Your task to perform on an android device: open app "Google Keep" Image 0: 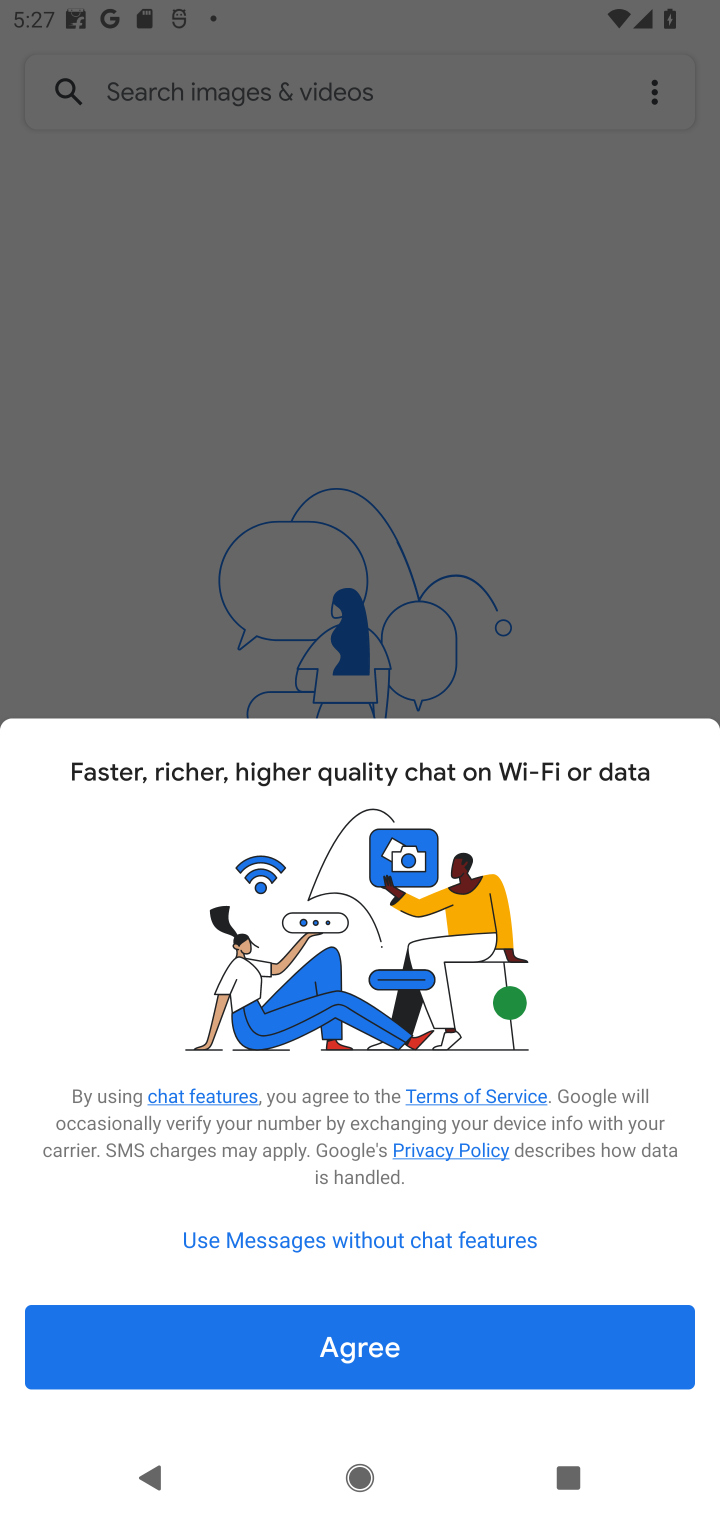
Step 0: press home button
Your task to perform on an android device: open app "Google Keep" Image 1: 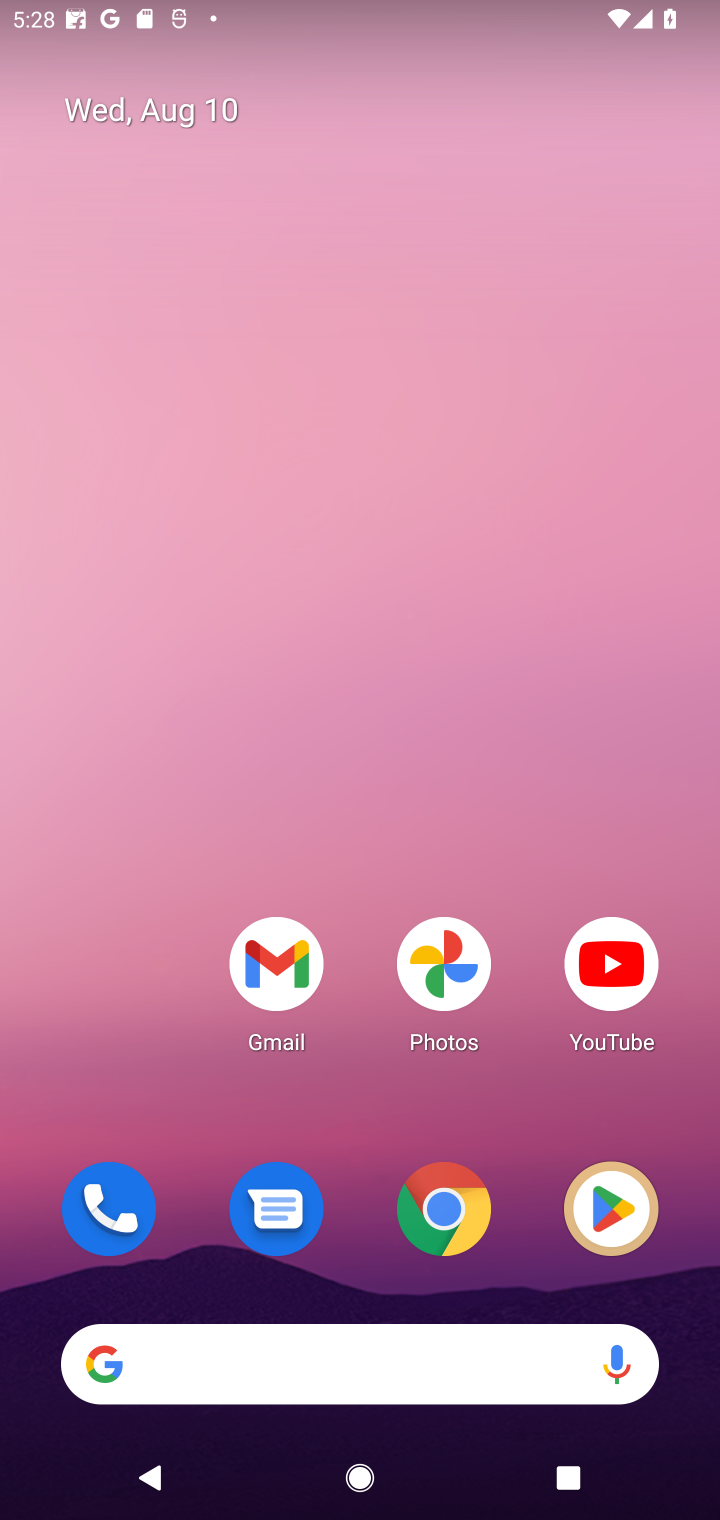
Step 1: drag from (384, 1298) to (25, 458)
Your task to perform on an android device: open app "Google Keep" Image 2: 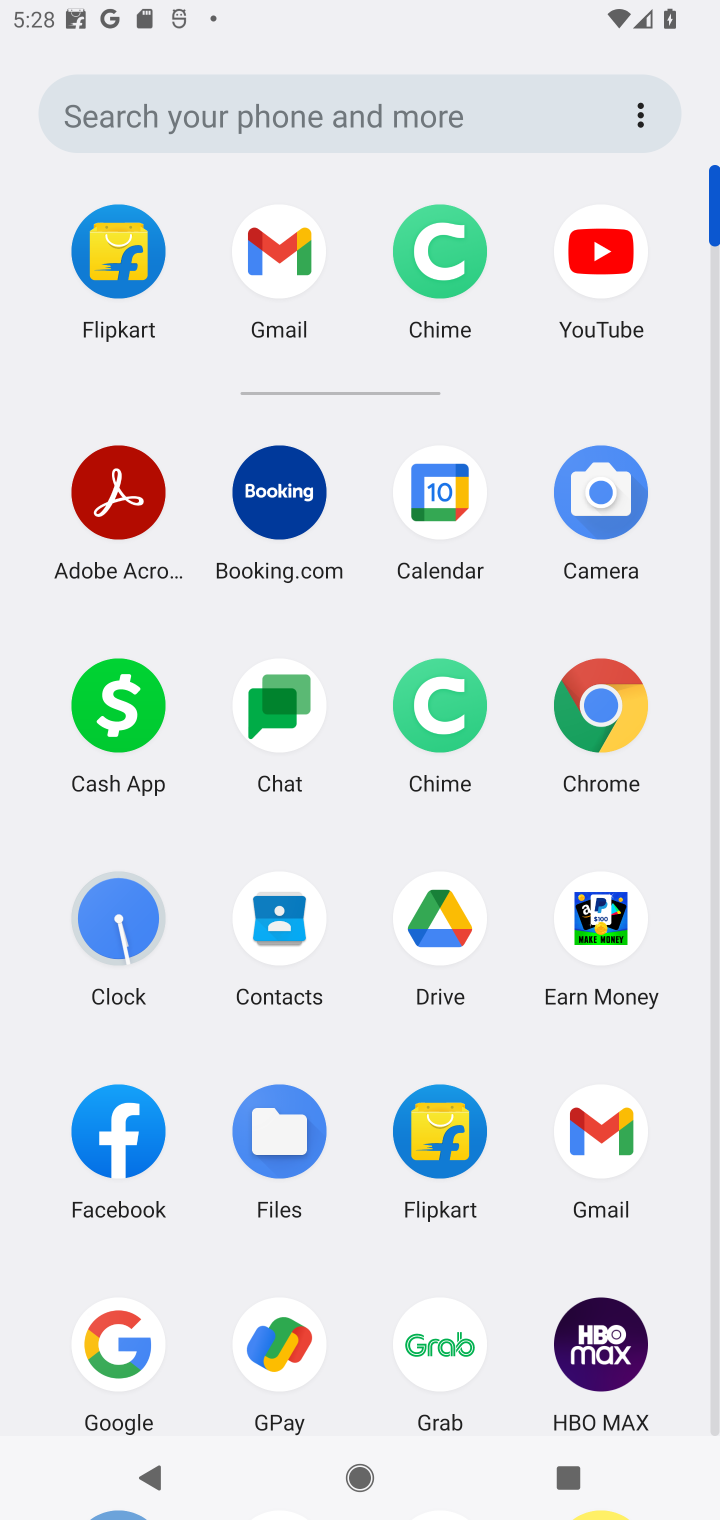
Step 2: drag from (416, 1327) to (401, 565)
Your task to perform on an android device: open app "Google Keep" Image 3: 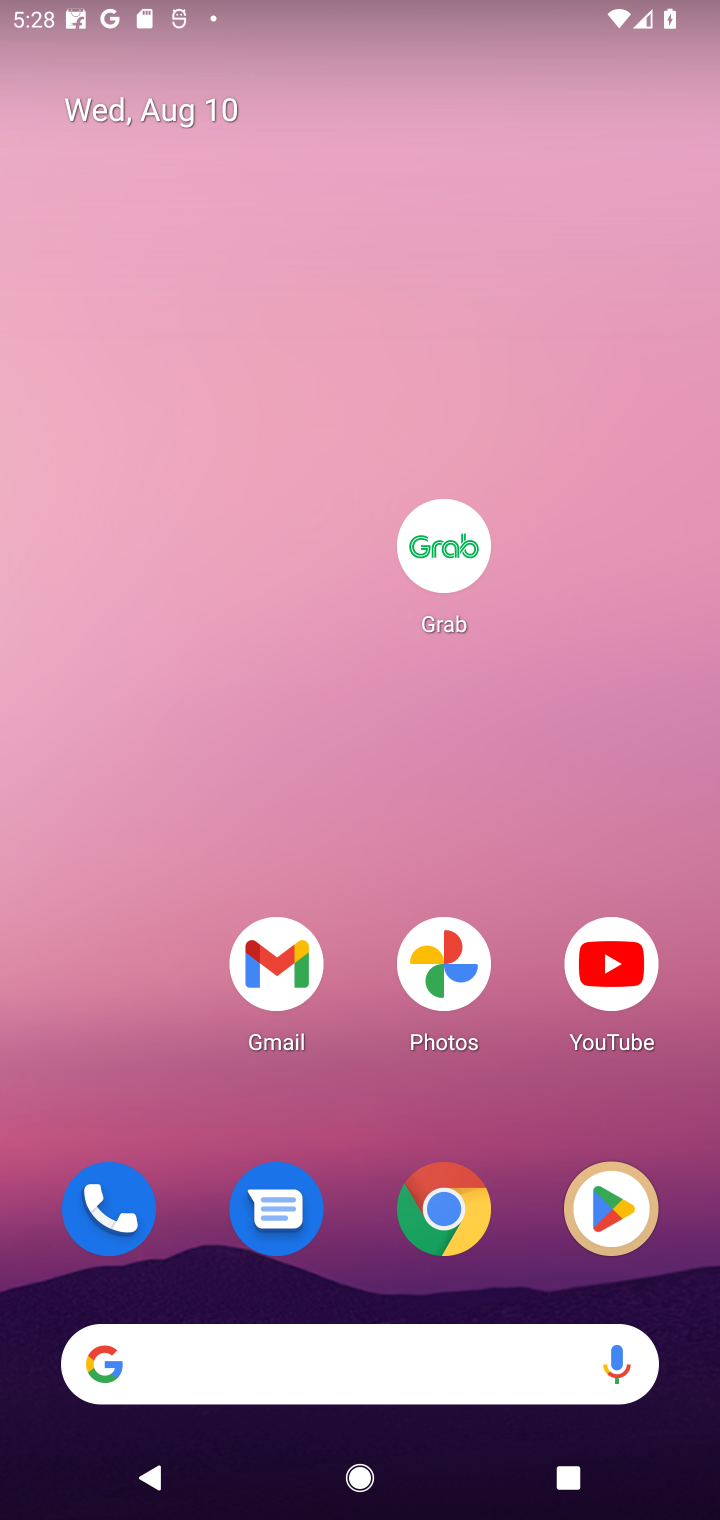
Step 3: click (652, 1240)
Your task to perform on an android device: open app "Google Keep" Image 4: 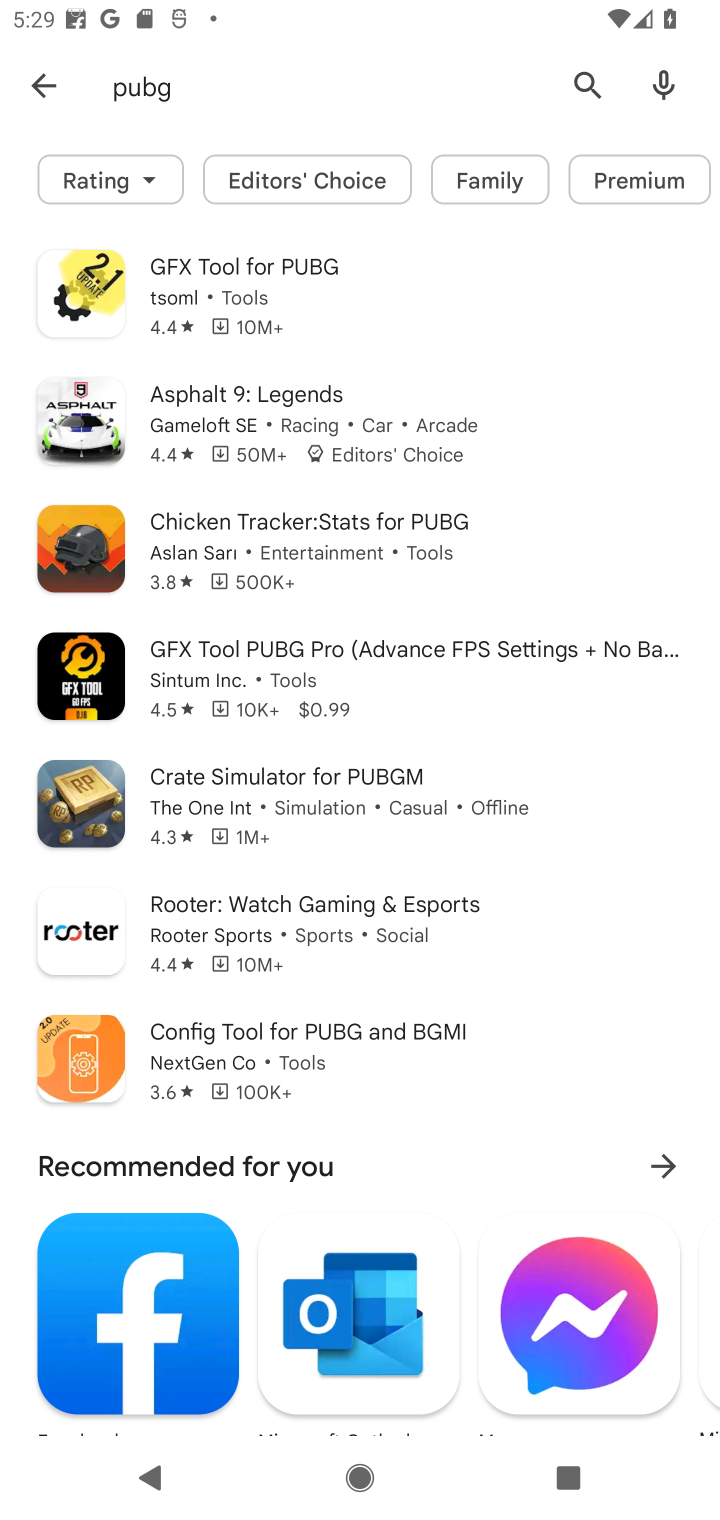
Step 4: click (575, 97)
Your task to perform on an android device: open app "Google Keep" Image 5: 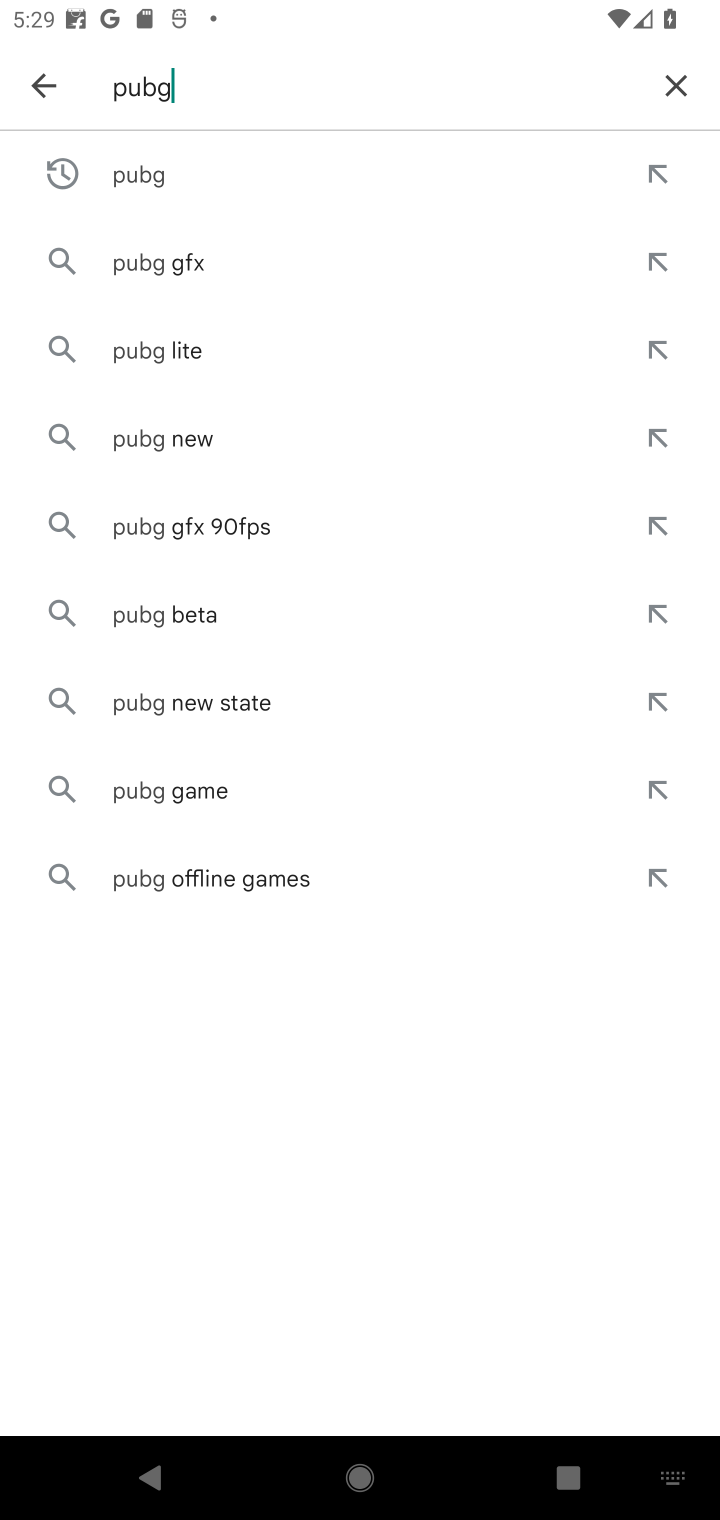
Step 5: click (649, 72)
Your task to perform on an android device: open app "Google Keep" Image 6: 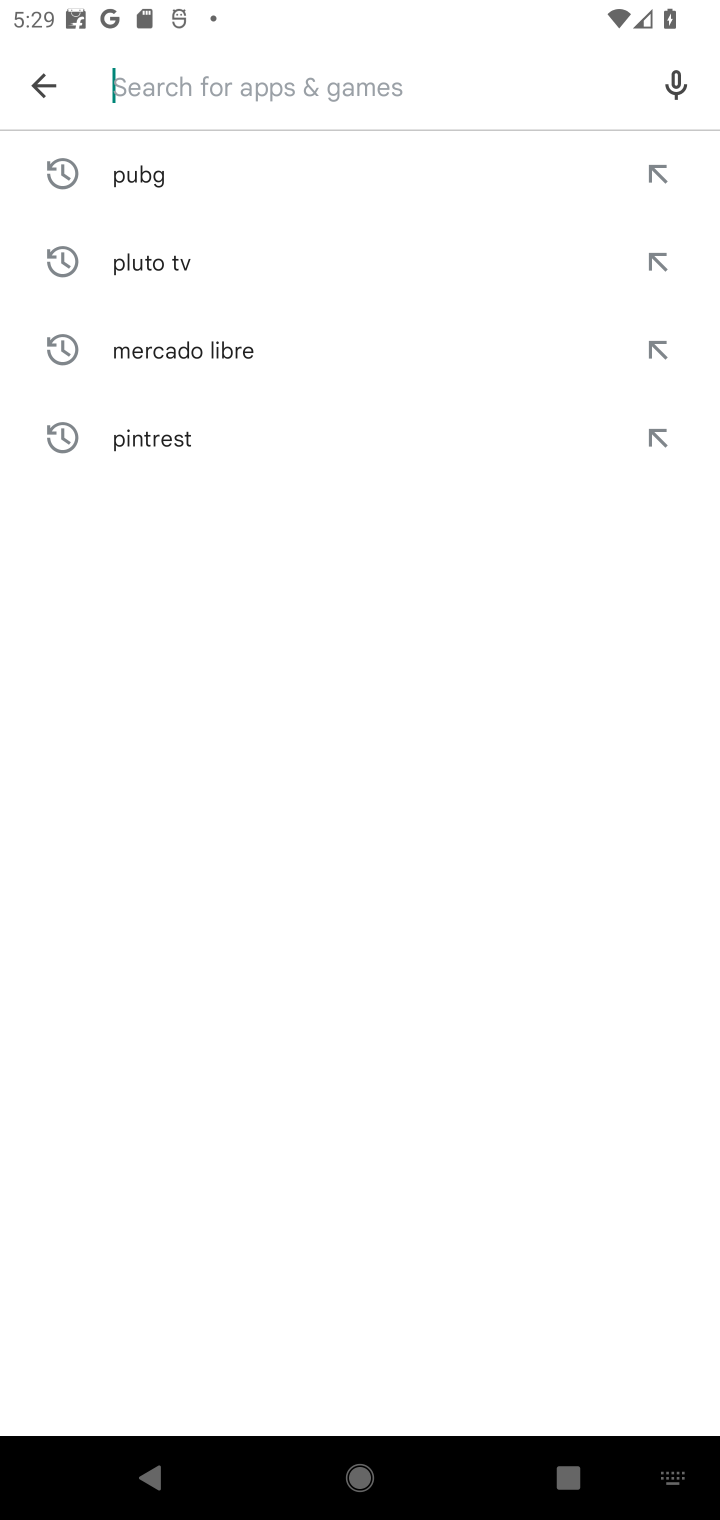
Step 6: type "google keeps"
Your task to perform on an android device: open app "Google Keep" Image 7: 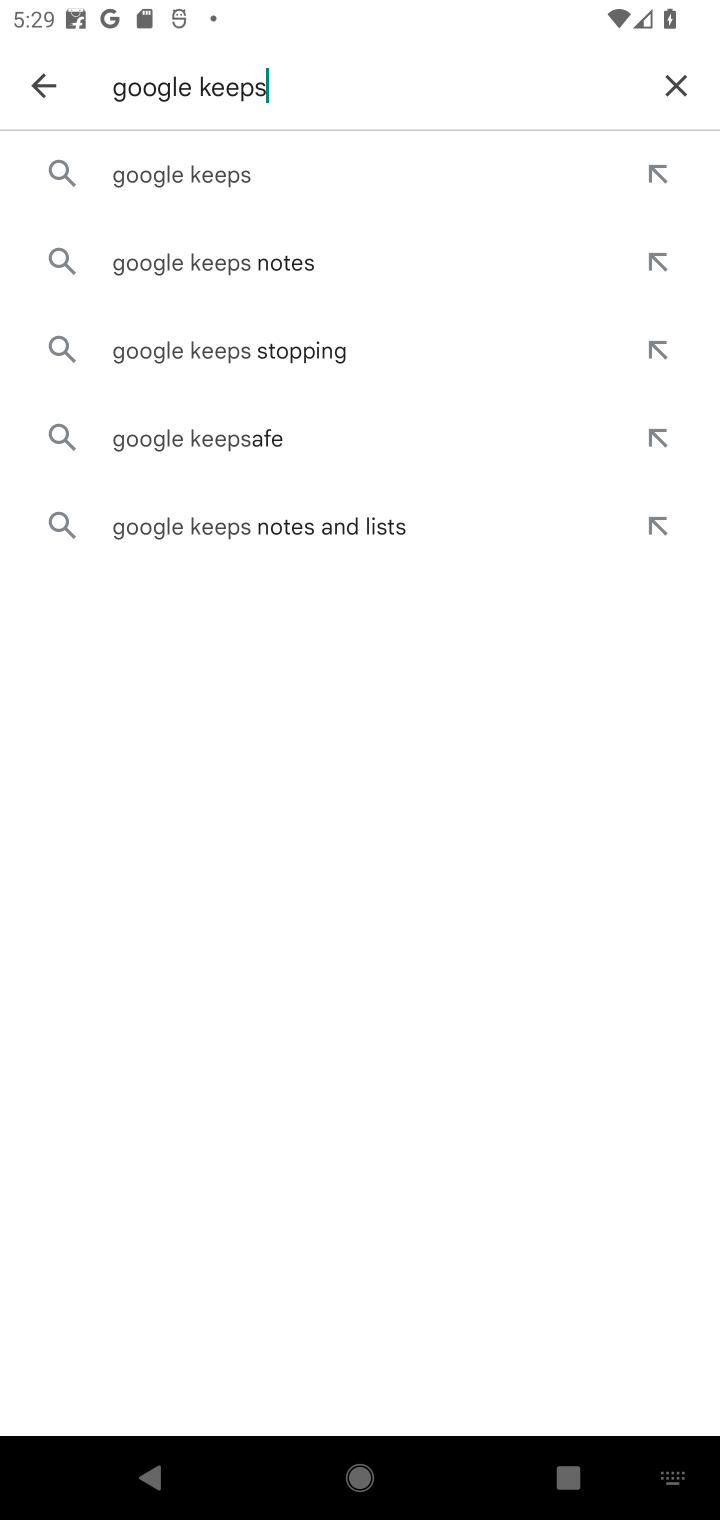
Step 7: click (620, 195)
Your task to perform on an android device: open app "Google Keep" Image 8: 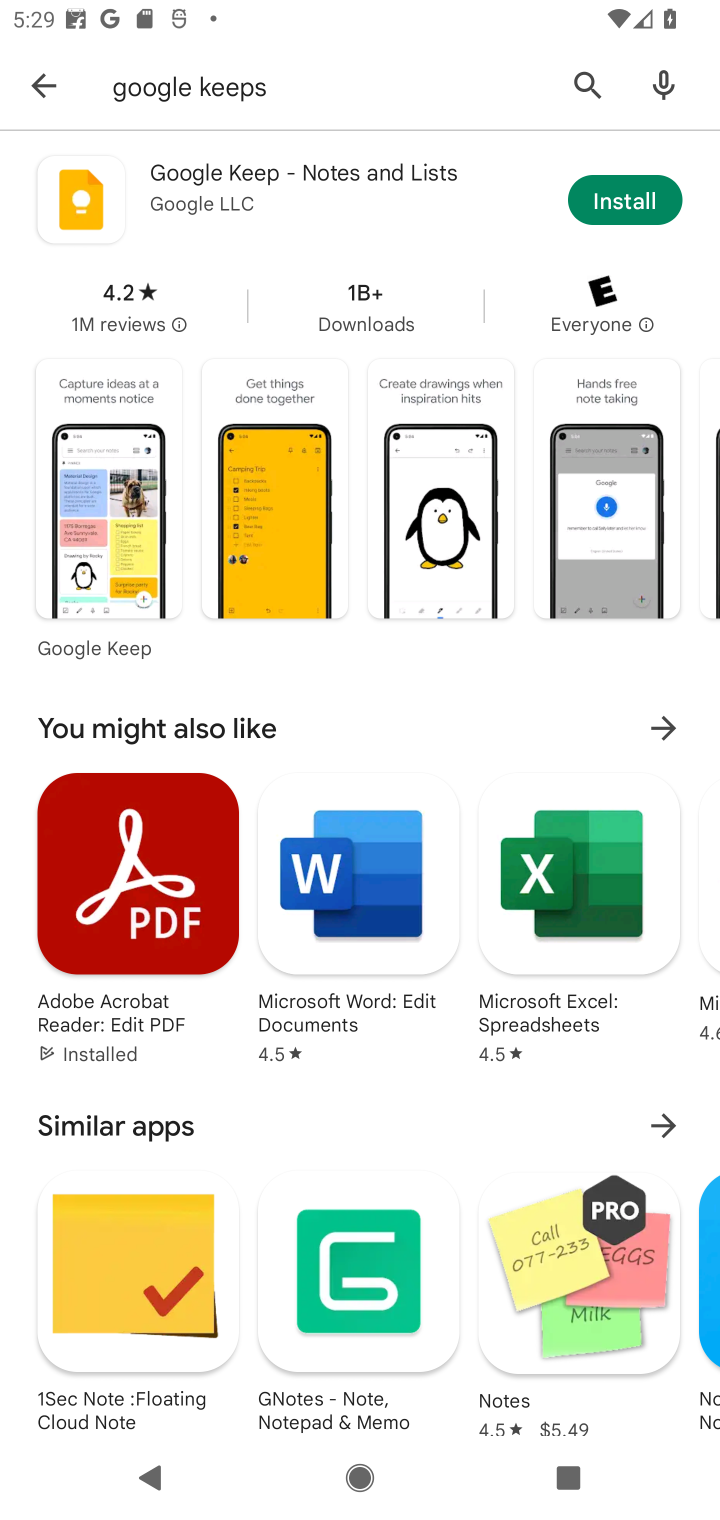
Step 8: click (620, 195)
Your task to perform on an android device: open app "Google Keep" Image 9: 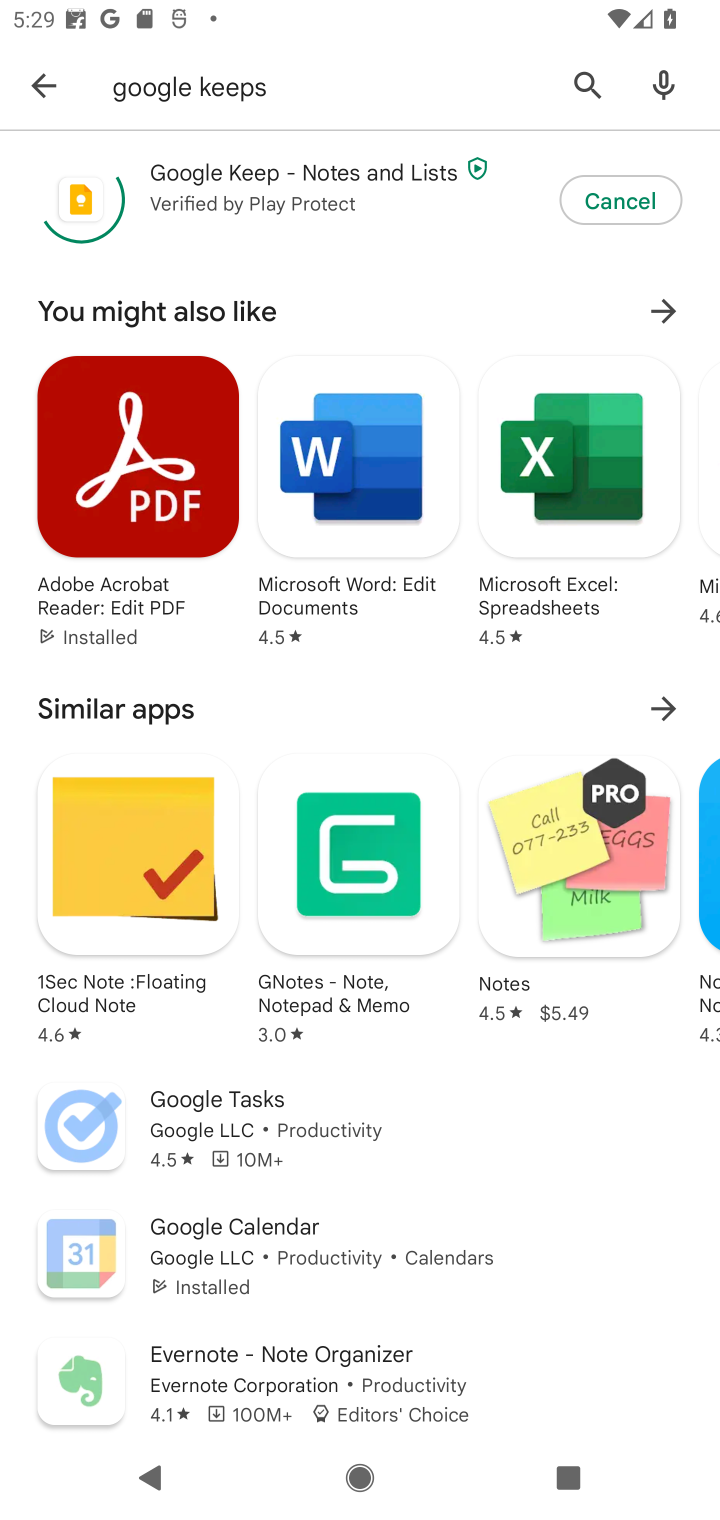
Step 9: task complete